Your task to perform on an android device: check battery use Image 0: 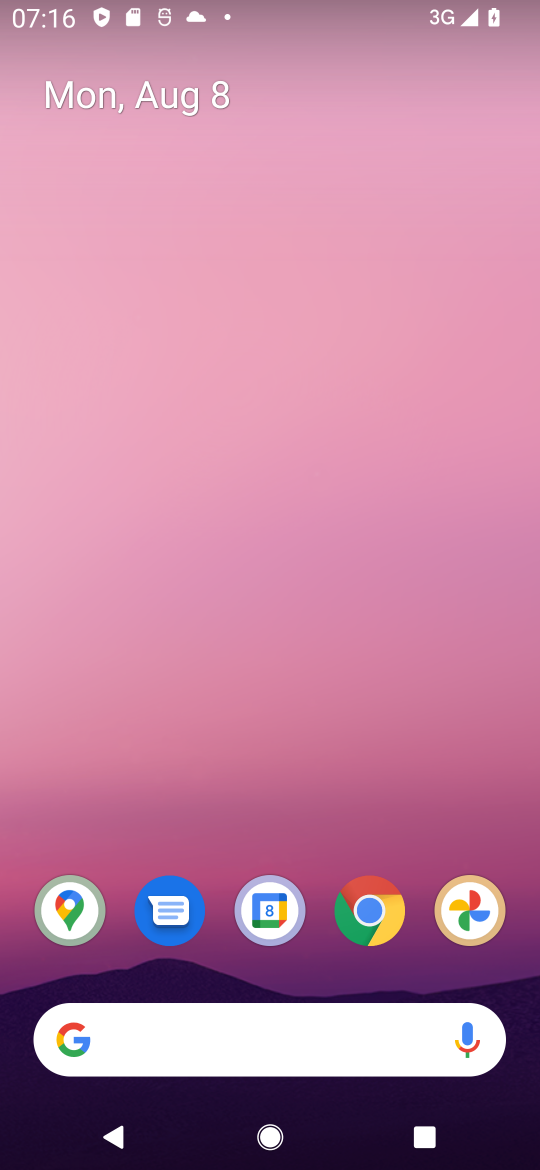
Step 0: drag from (235, 1048) to (297, 393)
Your task to perform on an android device: check battery use Image 1: 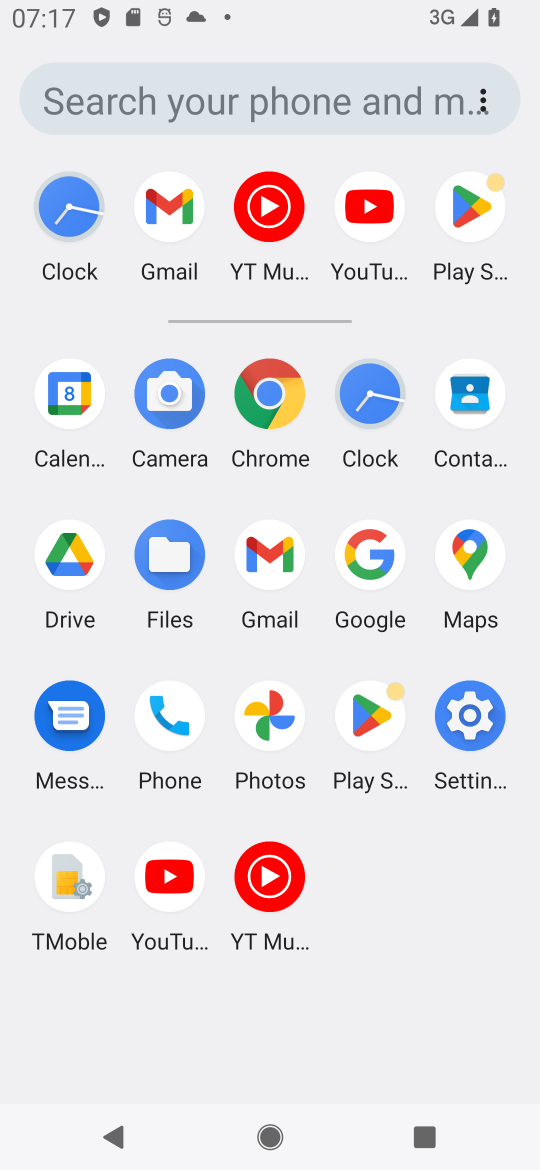
Step 1: click (471, 712)
Your task to perform on an android device: check battery use Image 2: 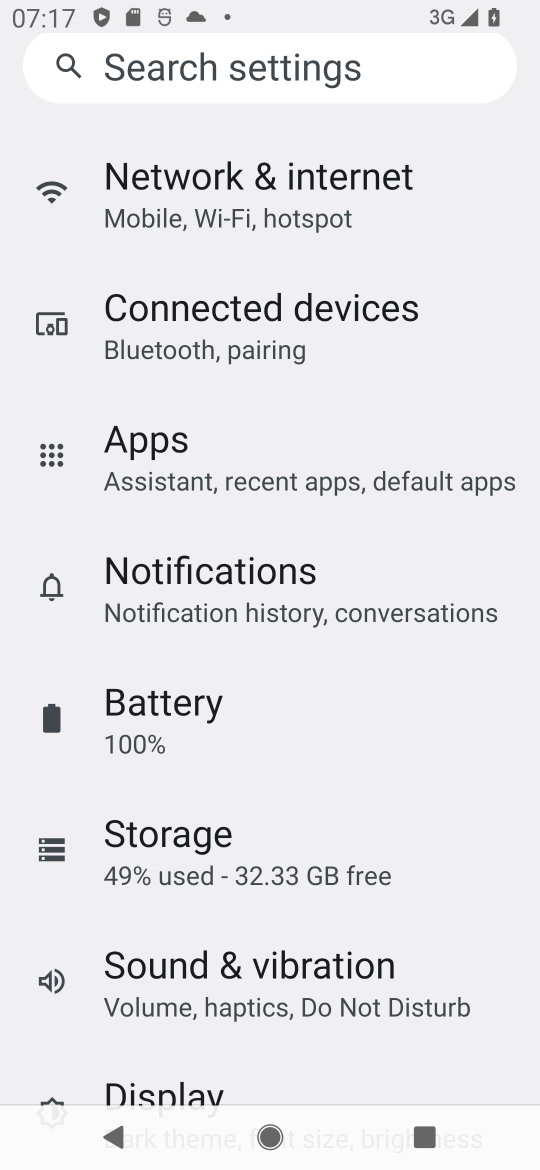
Step 2: click (155, 719)
Your task to perform on an android device: check battery use Image 3: 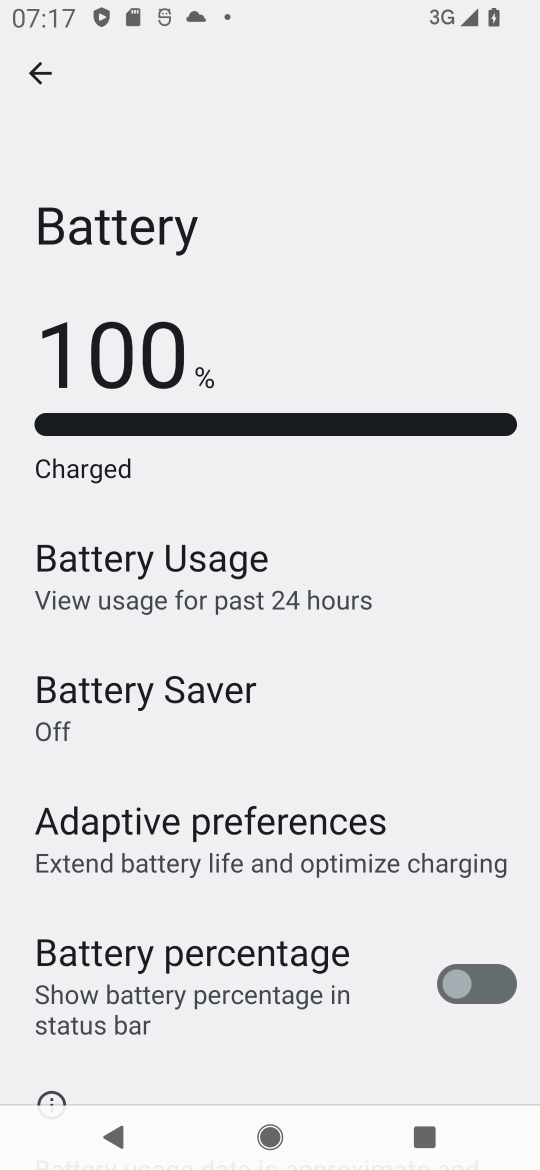
Step 3: click (180, 591)
Your task to perform on an android device: check battery use Image 4: 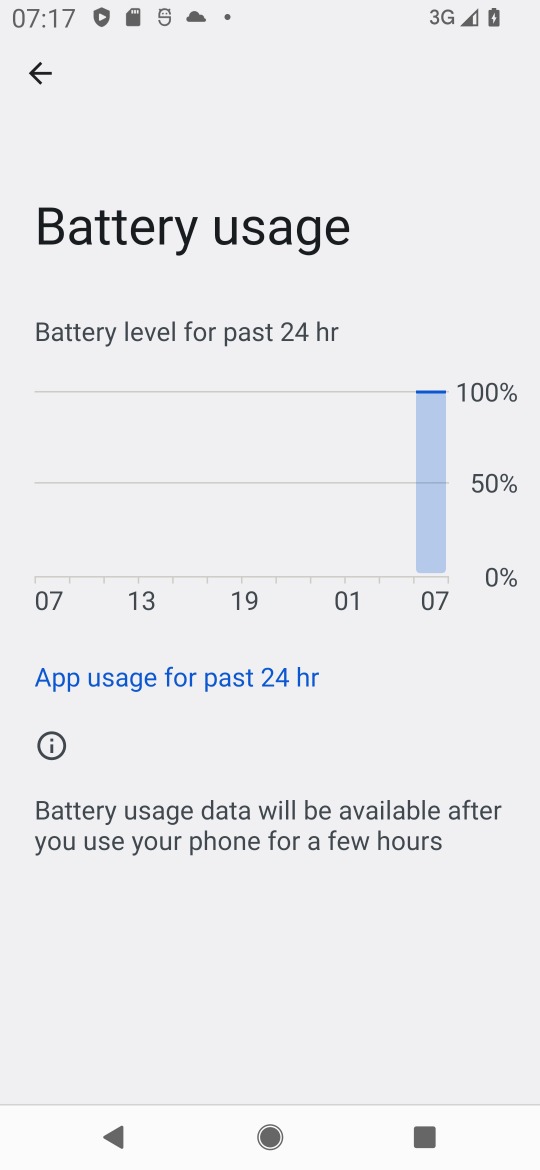
Step 4: task complete